Your task to perform on an android device: Do I have any events tomorrow? Image 0: 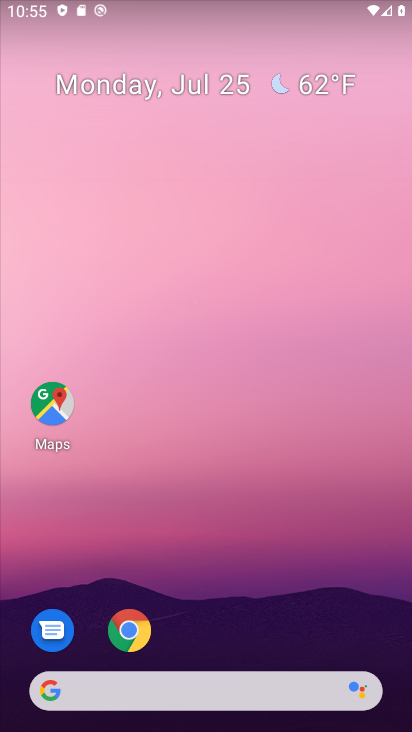
Step 0: drag from (187, 641) to (302, 231)
Your task to perform on an android device: Do I have any events tomorrow? Image 1: 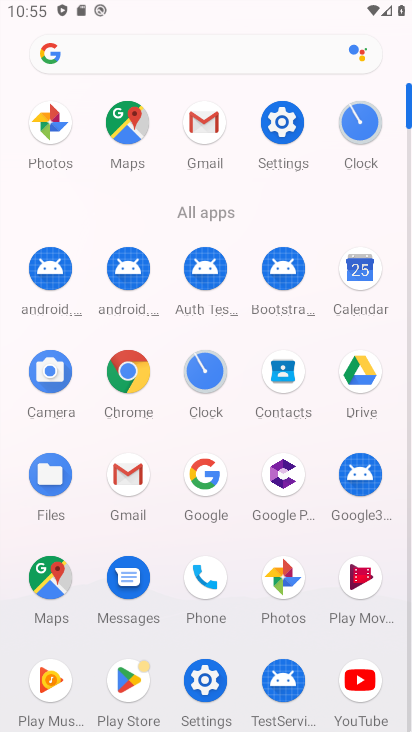
Step 1: click (354, 263)
Your task to perform on an android device: Do I have any events tomorrow? Image 2: 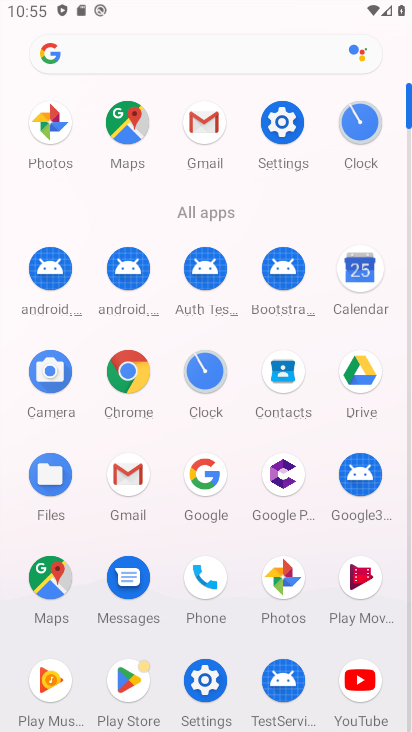
Step 2: click (354, 263)
Your task to perform on an android device: Do I have any events tomorrow? Image 3: 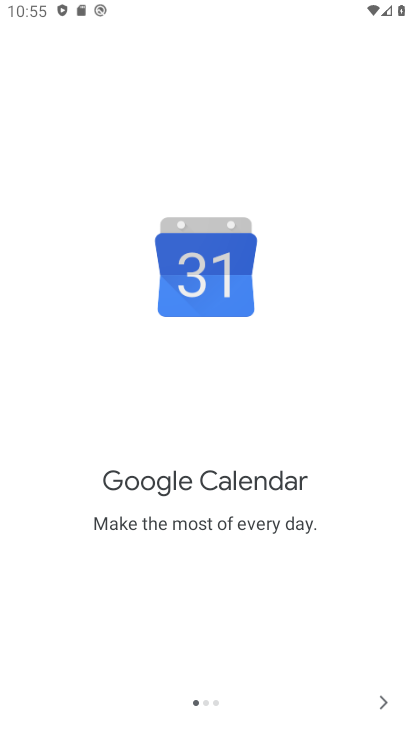
Step 3: click (383, 697)
Your task to perform on an android device: Do I have any events tomorrow? Image 4: 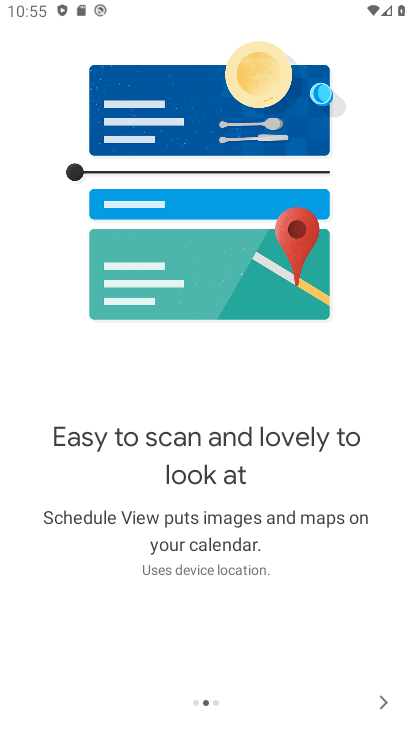
Step 4: click (386, 694)
Your task to perform on an android device: Do I have any events tomorrow? Image 5: 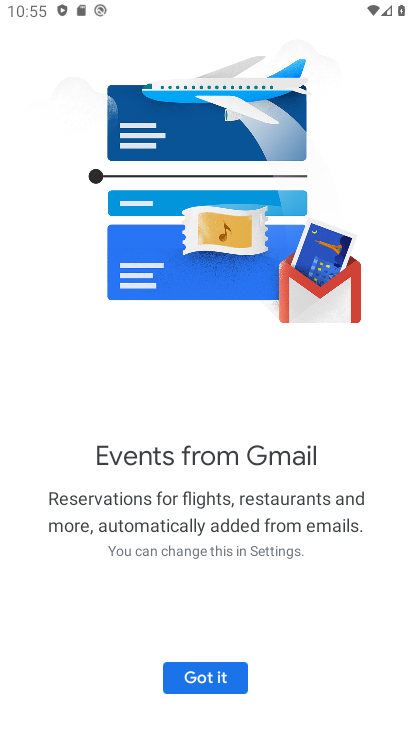
Step 5: click (200, 674)
Your task to perform on an android device: Do I have any events tomorrow? Image 6: 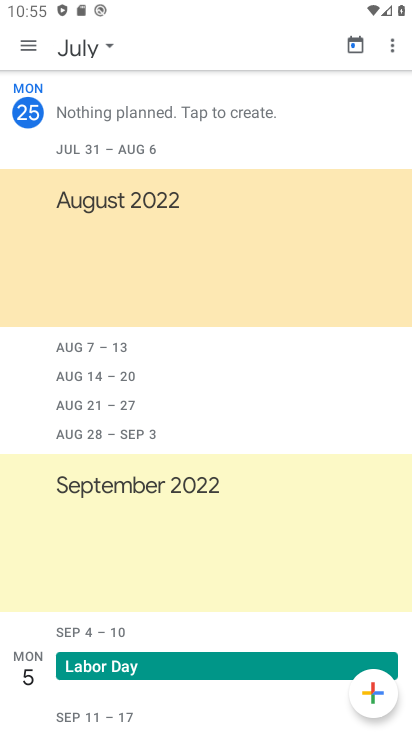
Step 6: click (344, 36)
Your task to perform on an android device: Do I have any events tomorrow? Image 7: 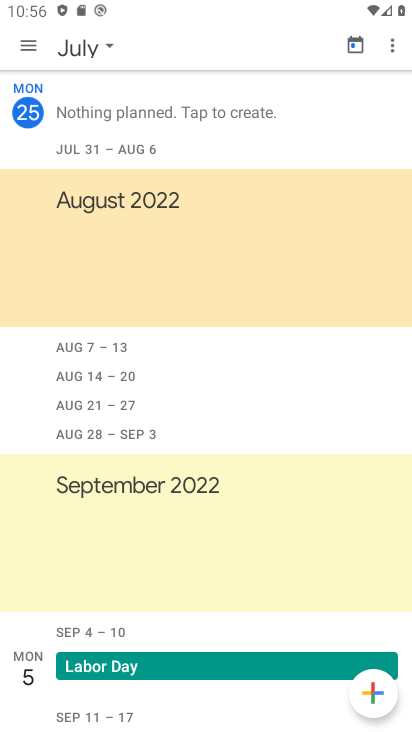
Step 7: click (363, 47)
Your task to perform on an android device: Do I have any events tomorrow? Image 8: 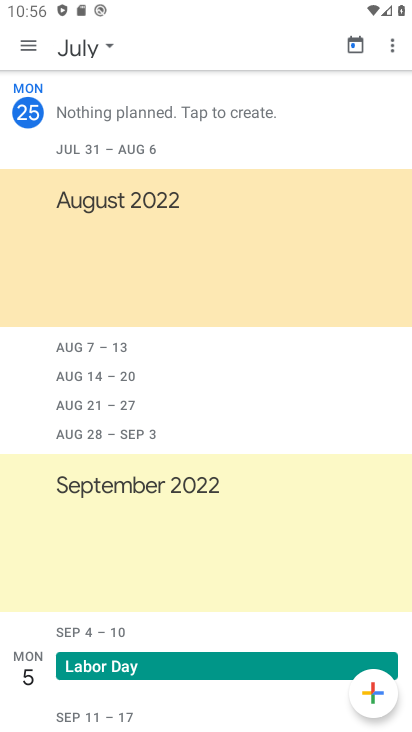
Step 8: click (86, 29)
Your task to perform on an android device: Do I have any events tomorrow? Image 9: 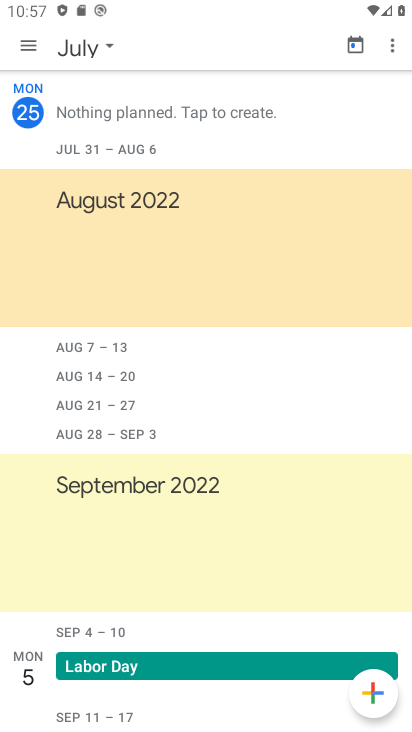
Step 9: click (84, 56)
Your task to perform on an android device: Do I have any events tomorrow? Image 10: 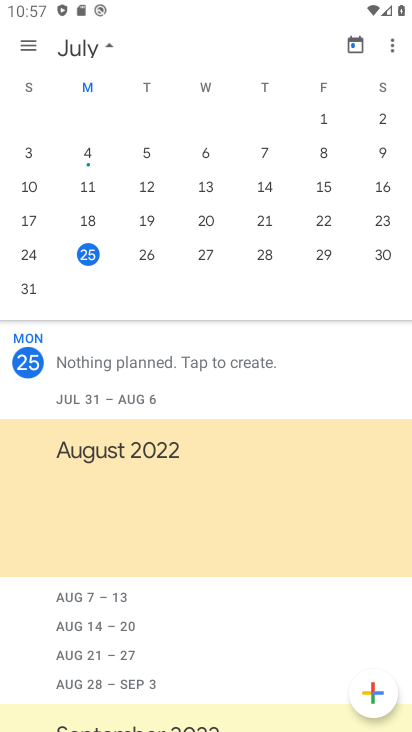
Step 10: click (147, 250)
Your task to perform on an android device: Do I have any events tomorrow? Image 11: 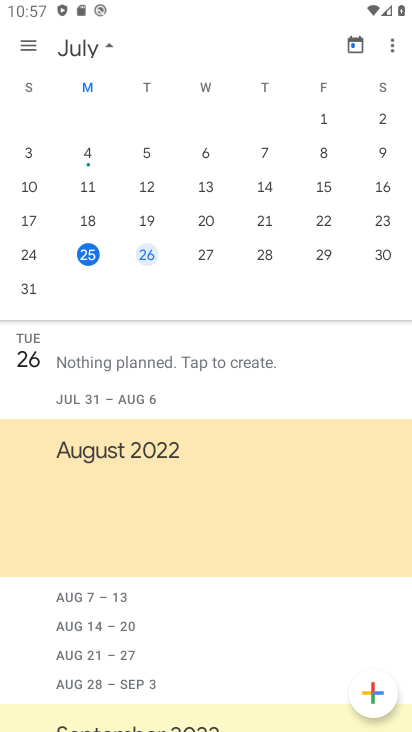
Step 11: task complete